Your task to perform on an android device: toggle location history Image 0: 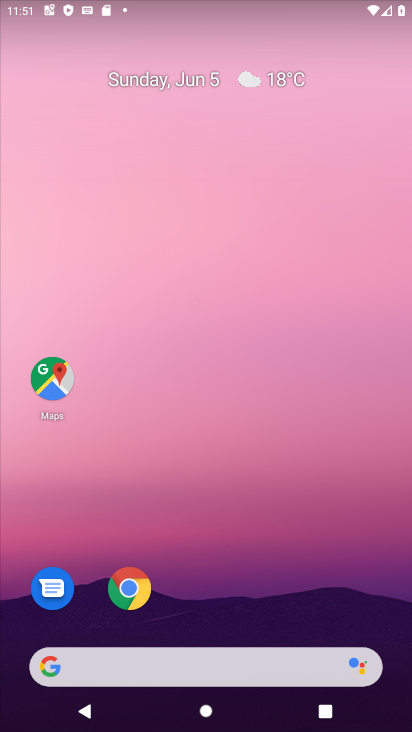
Step 0: drag from (248, 607) to (190, 236)
Your task to perform on an android device: toggle location history Image 1: 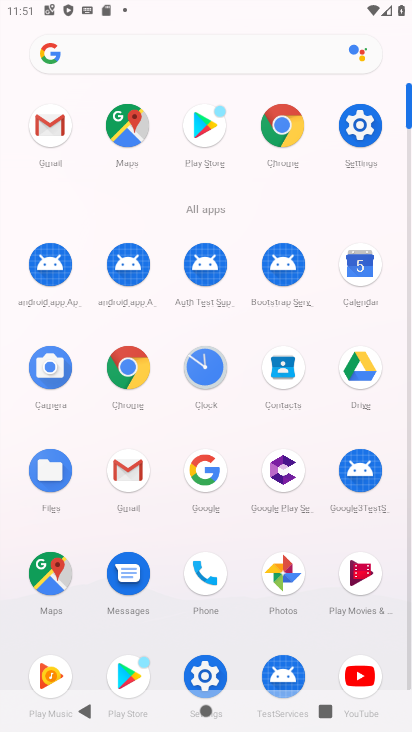
Step 1: click (127, 138)
Your task to perform on an android device: toggle location history Image 2: 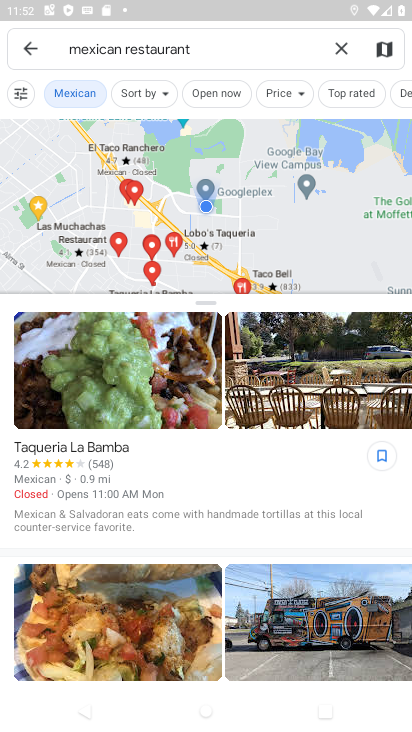
Step 2: click (28, 47)
Your task to perform on an android device: toggle location history Image 3: 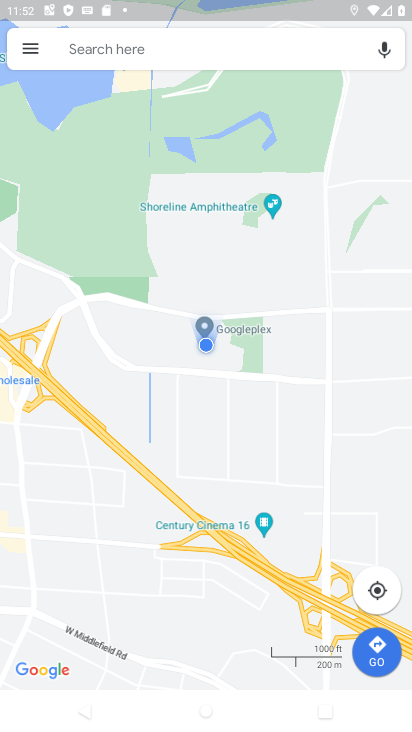
Step 3: click (28, 47)
Your task to perform on an android device: toggle location history Image 4: 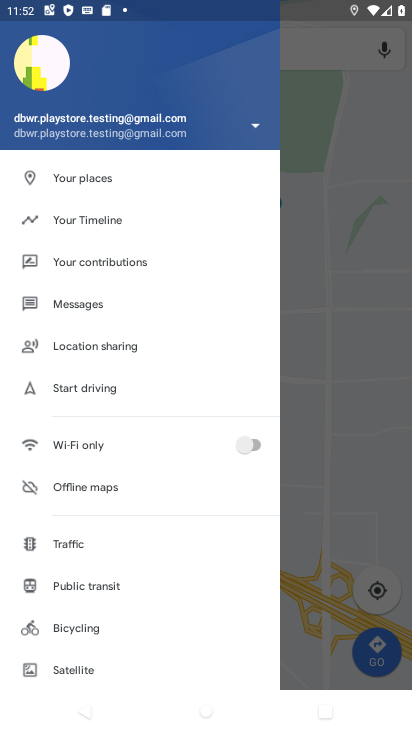
Step 4: click (94, 224)
Your task to perform on an android device: toggle location history Image 5: 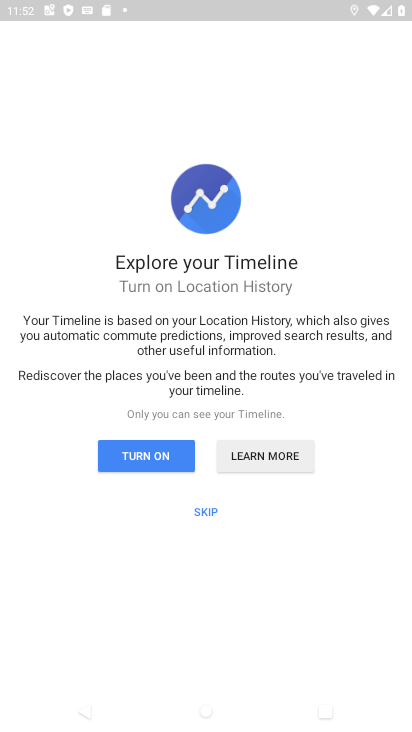
Step 5: click (164, 457)
Your task to perform on an android device: toggle location history Image 6: 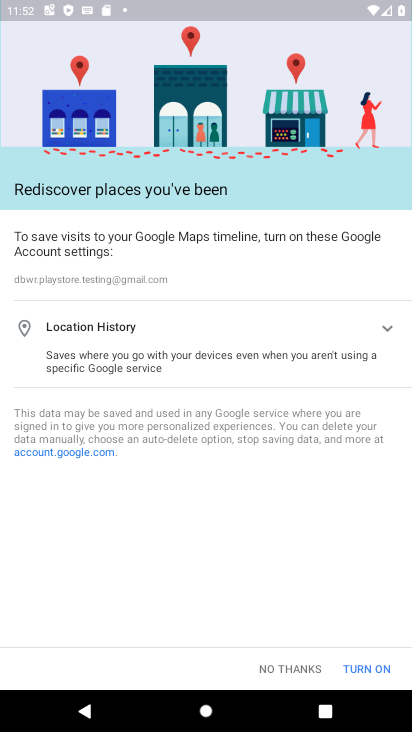
Step 6: click (371, 668)
Your task to perform on an android device: toggle location history Image 7: 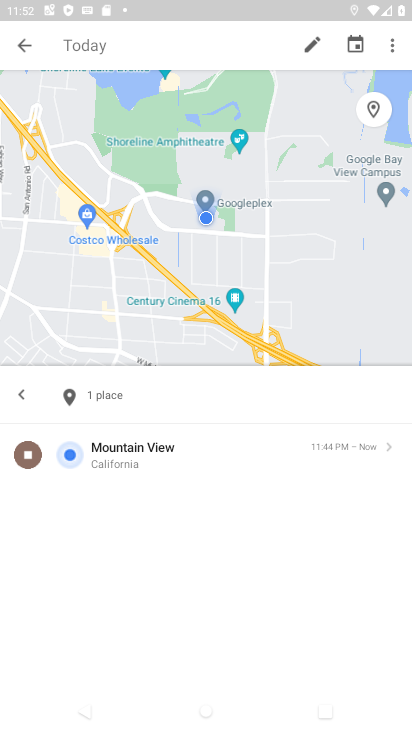
Step 7: task complete